Your task to perform on an android device: open chrome privacy settings Image 0: 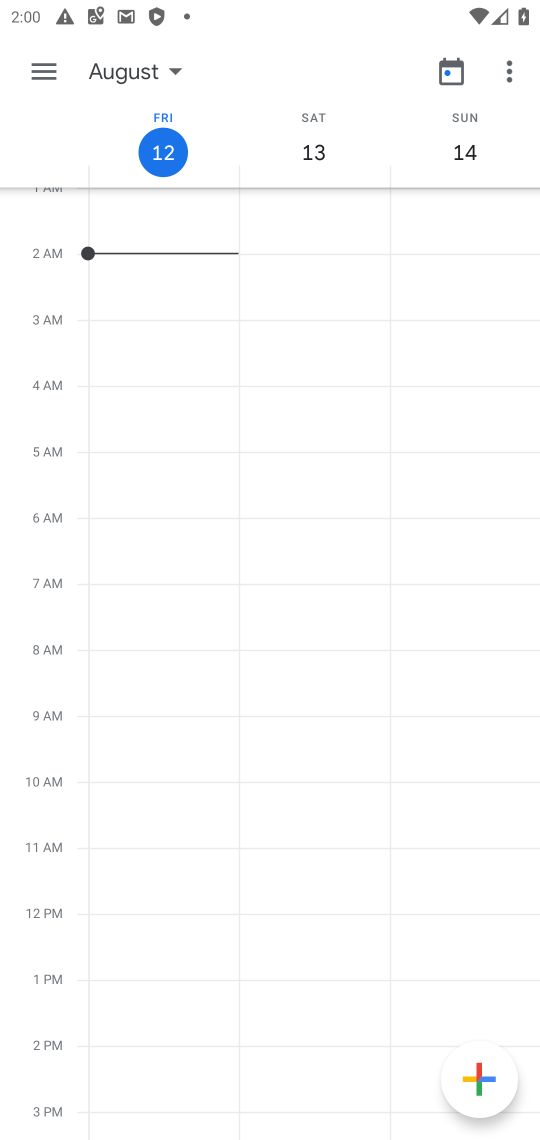
Step 0: press home button
Your task to perform on an android device: open chrome privacy settings Image 1: 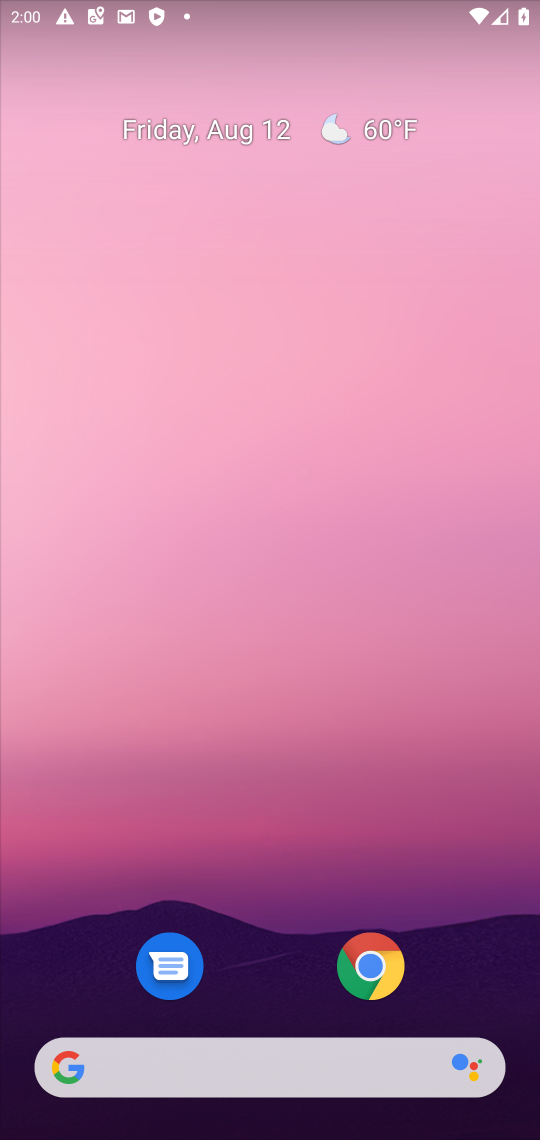
Step 1: drag from (263, 811) to (319, 149)
Your task to perform on an android device: open chrome privacy settings Image 2: 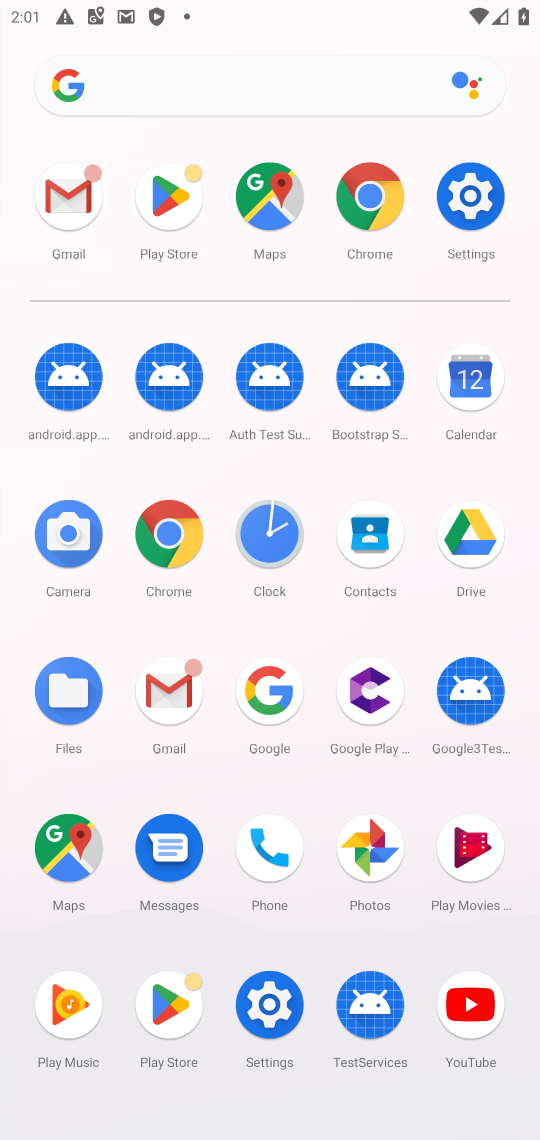
Step 2: click (170, 528)
Your task to perform on an android device: open chrome privacy settings Image 3: 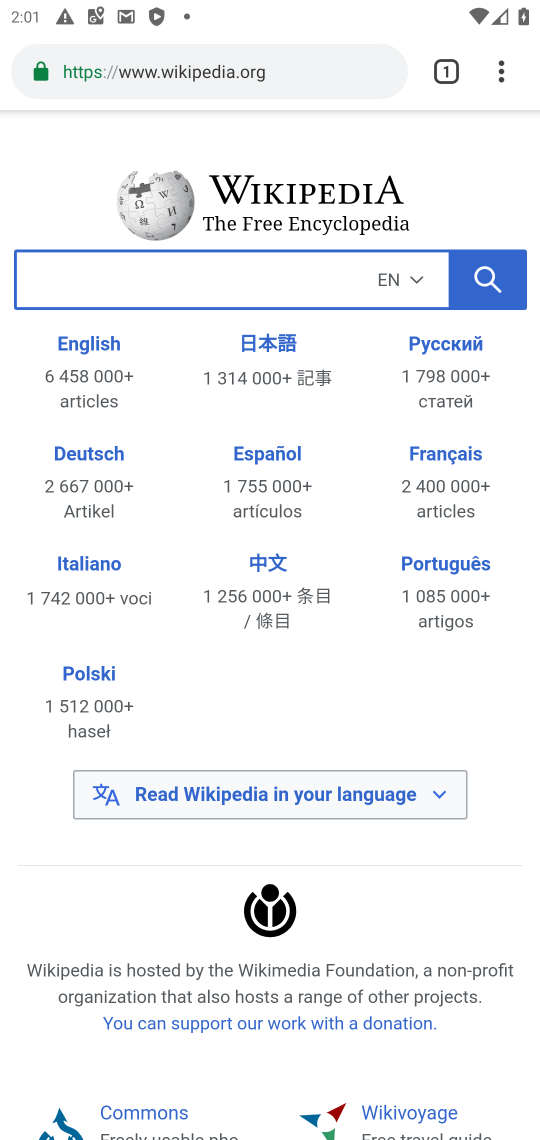
Step 3: drag from (508, 66) to (240, 861)
Your task to perform on an android device: open chrome privacy settings Image 4: 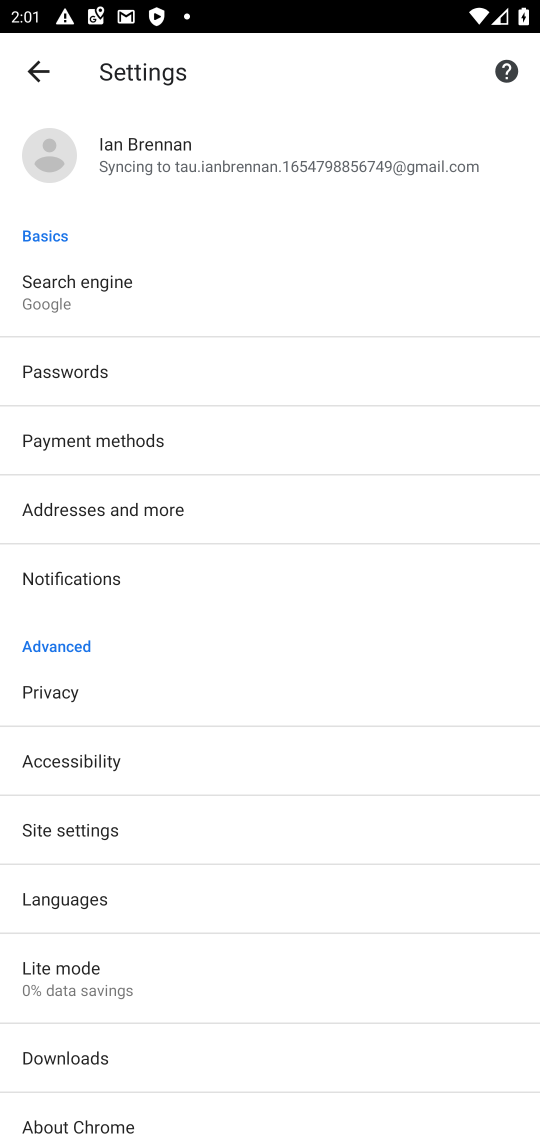
Step 4: click (79, 695)
Your task to perform on an android device: open chrome privacy settings Image 5: 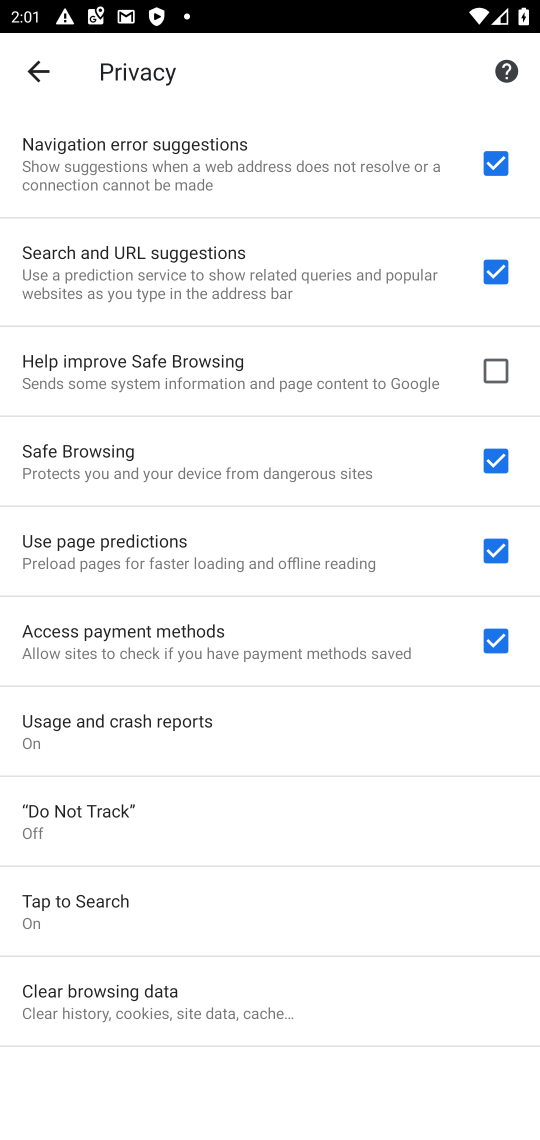
Step 5: task complete